Your task to perform on an android device: move a message to another label in the gmail app Image 0: 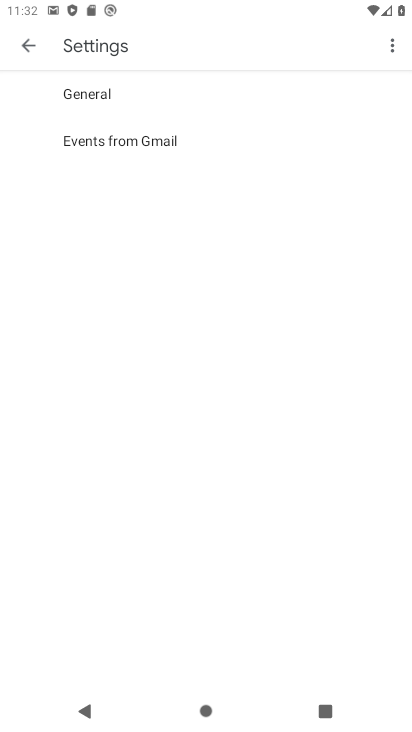
Step 0: press home button
Your task to perform on an android device: move a message to another label in the gmail app Image 1: 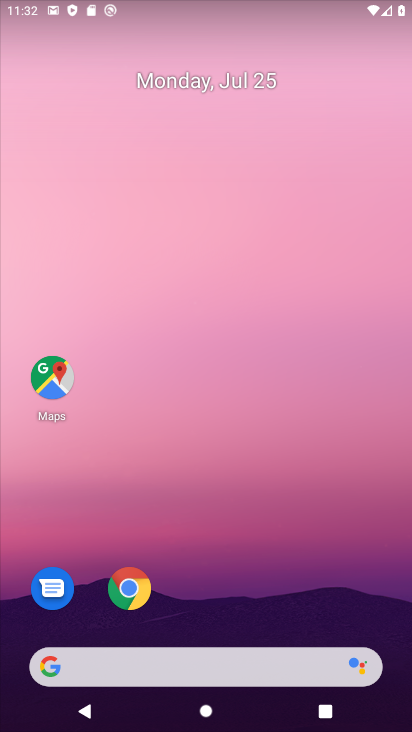
Step 1: drag from (281, 616) to (184, 32)
Your task to perform on an android device: move a message to another label in the gmail app Image 2: 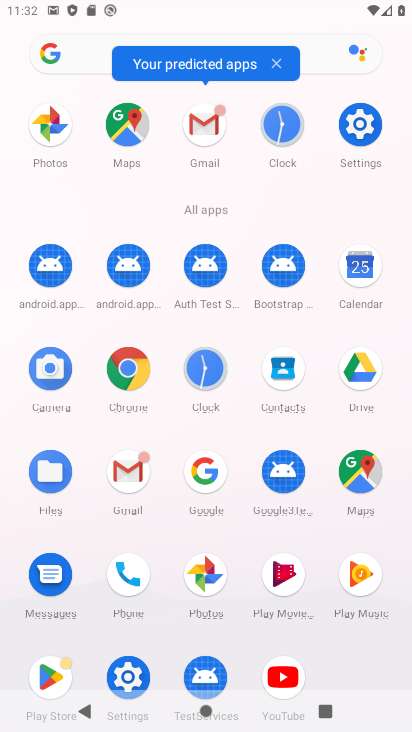
Step 2: click (204, 134)
Your task to perform on an android device: move a message to another label in the gmail app Image 3: 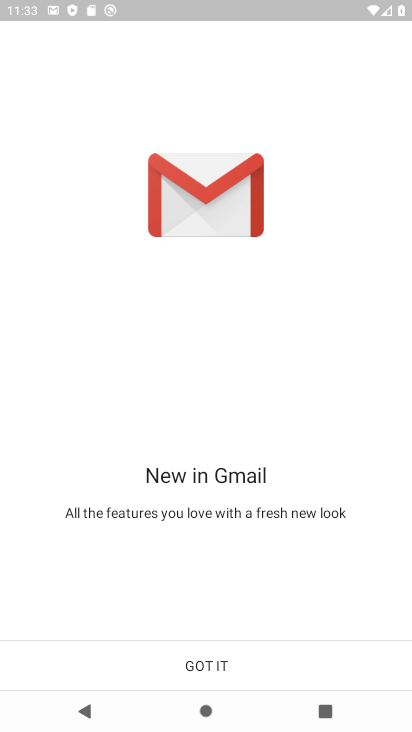
Step 3: click (237, 670)
Your task to perform on an android device: move a message to another label in the gmail app Image 4: 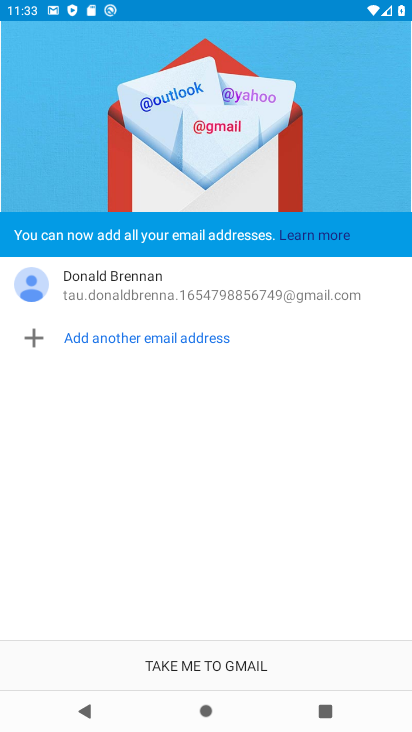
Step 4: click (237, 670)
Your task to perform on an android device: move a message to another label in the gmail app Image 5: 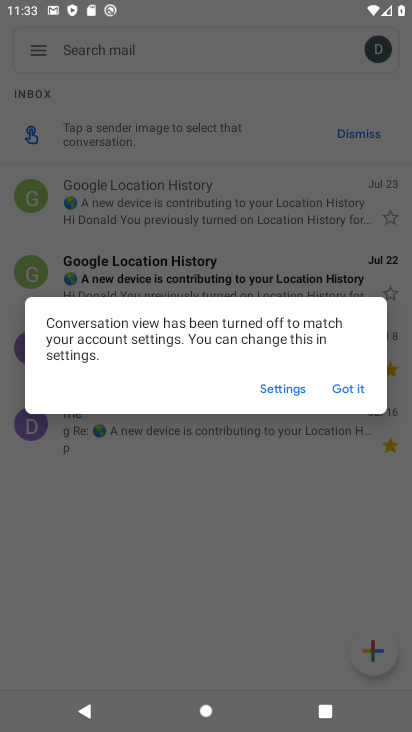
Step 5: click (349, 389)
Your task to perform on an android device: move a message to another label in the gmail app Image 6: 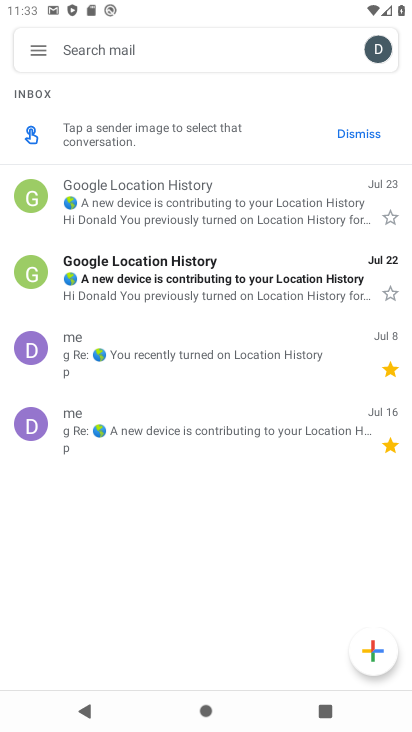
Step 6: click (301, 202)
Your task to perform on an android device: move a message to another label in the gmail app Image 7: 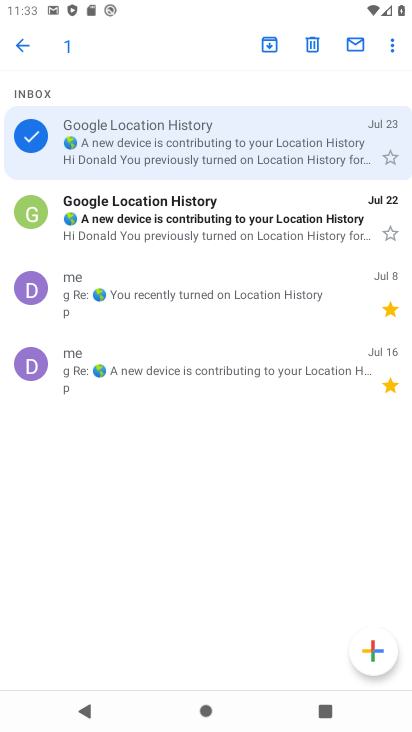
Step 7: click (392, 48)
Your task to perform on an android device: move a message to another label in the gmail app Image 8: 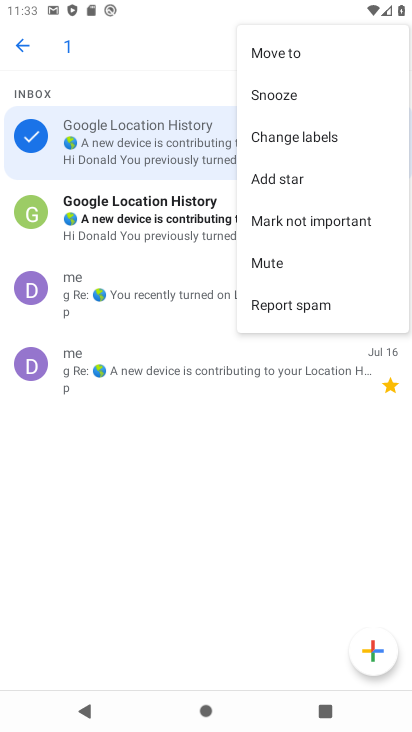
Step 8: click (334, 51)
Your task to perform on an android device: move a message to another label in the gmail app Image 9: 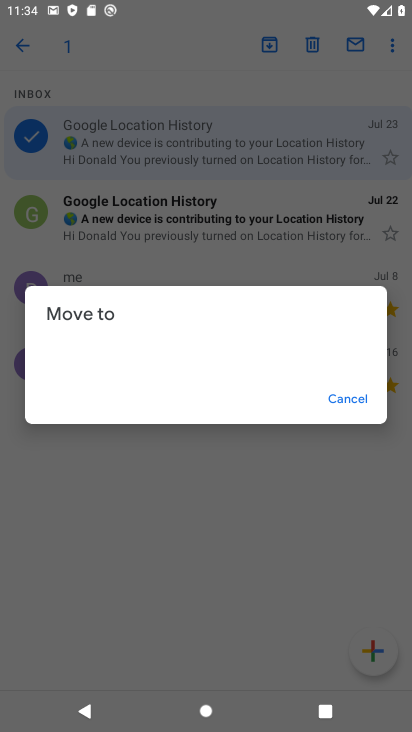
Step 9: click (346, 406)
Your task to perform on an android device: move a message to another label in the gmail app Image 10: 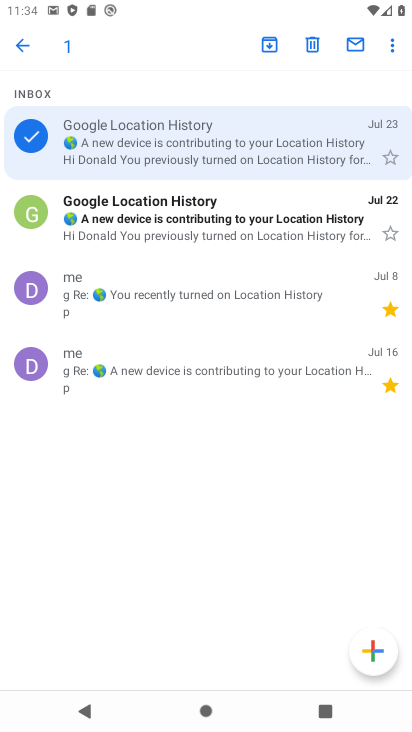
Step 10: task complete